Your task to perform on an android device: check battery use Image 0: 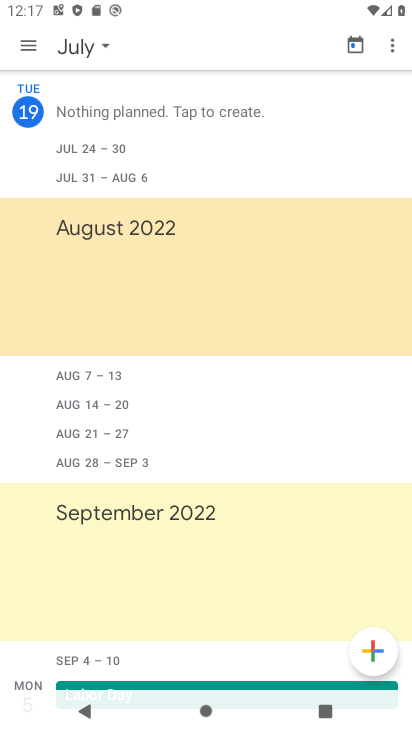
Step 0: press home button
Your task to perform on an android device: check battery use Image 1: 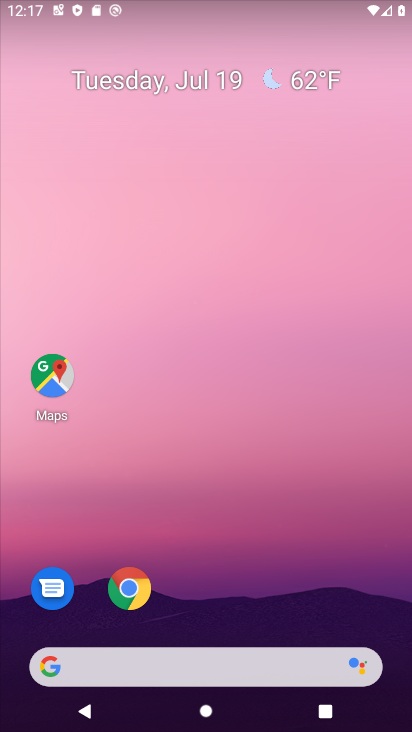
Step 1: drag from (258, 603) to (403, 83)
Your task to perform on an android device: check battery use Image 2: 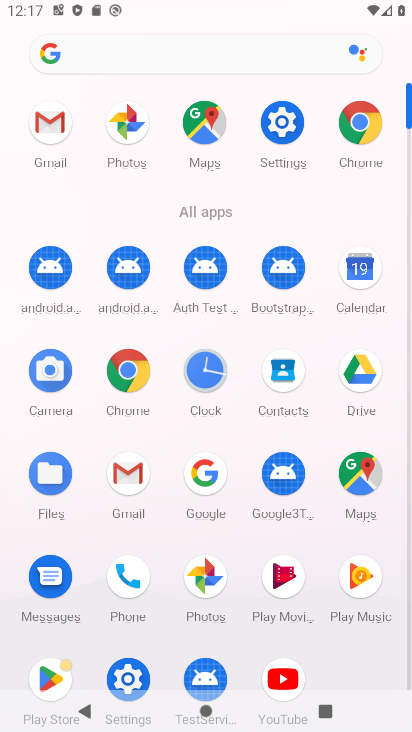
Step 2: click (286, 114)
Your task to perform on an android device: check battery use Image 3: 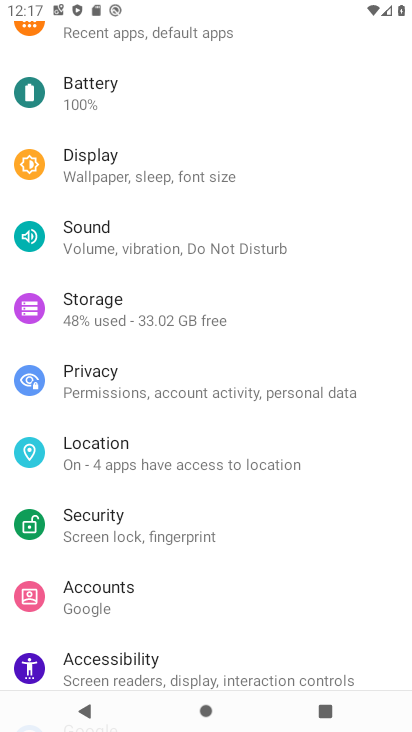
Step 3: click (81, 98)
Your task to perform on an android device: check battery use Image 4: 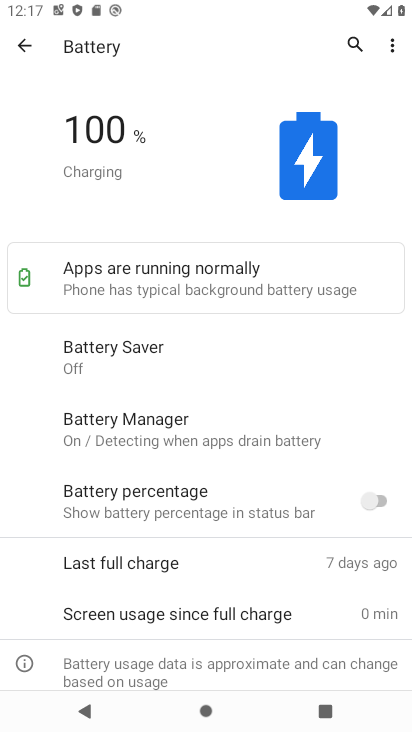
Step 4: click (389, 49)
Your task to perform on an android device: check battery use Image 5: 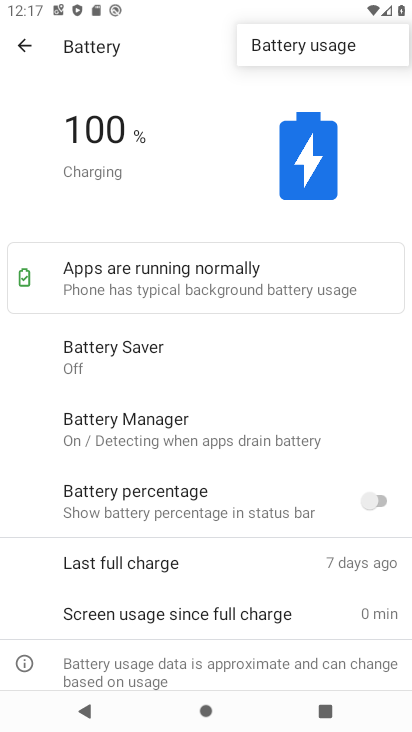
Step 5: click (350, 52)
Your task to perform on an android device: check battery use Image 6: 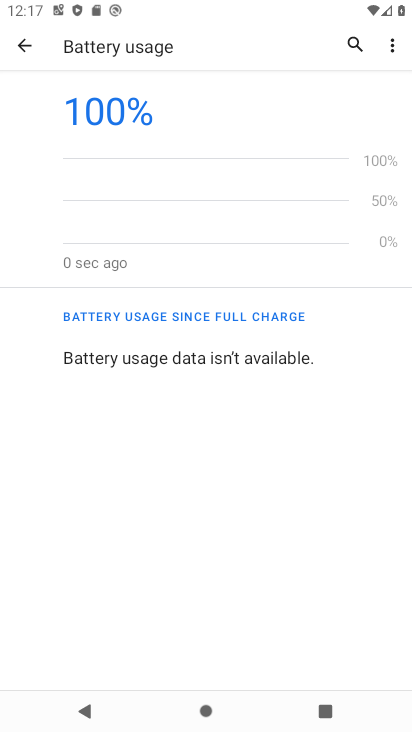
Step 6: task complete